Your task to perform on an android device: check data usage Image 0: 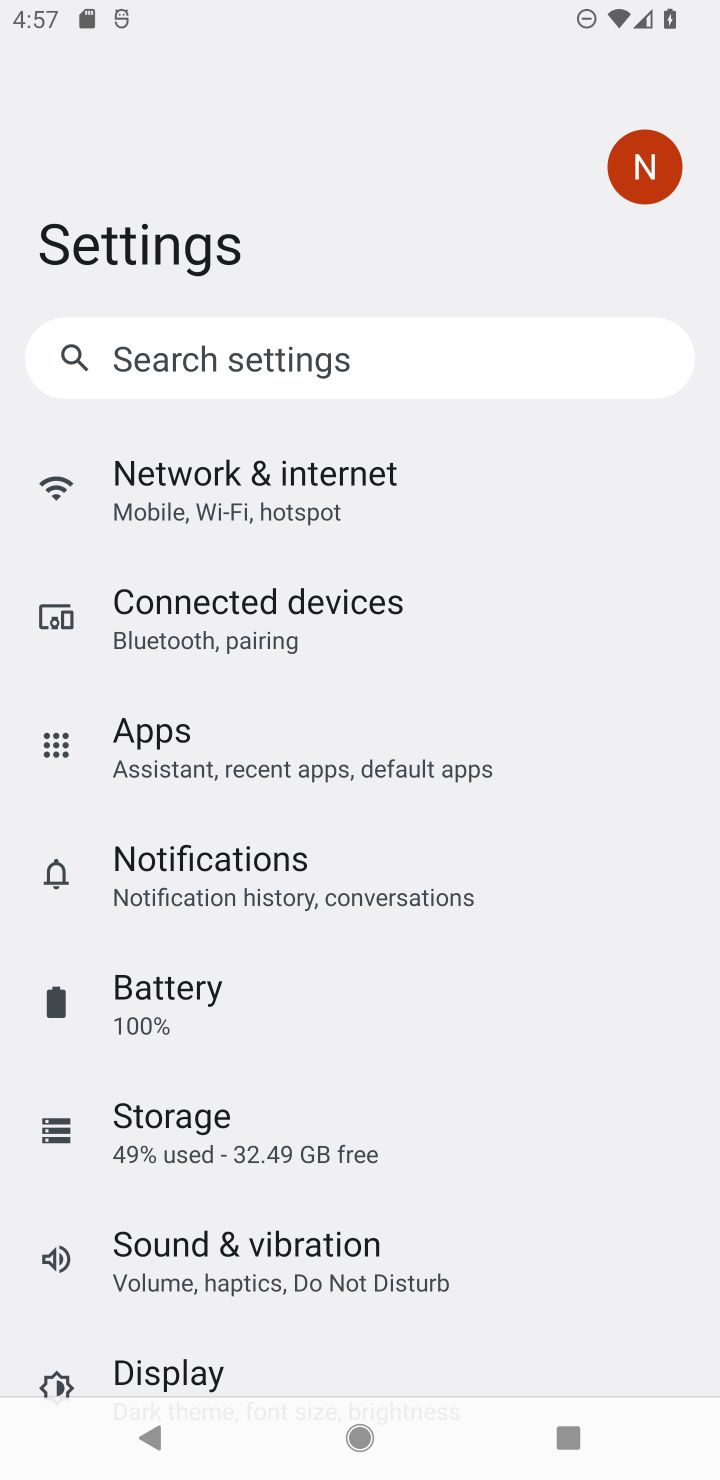
Step 0: drag from (343, 1231) to (420, 345)
Your task to perform on an android device: check data usage Image 1: 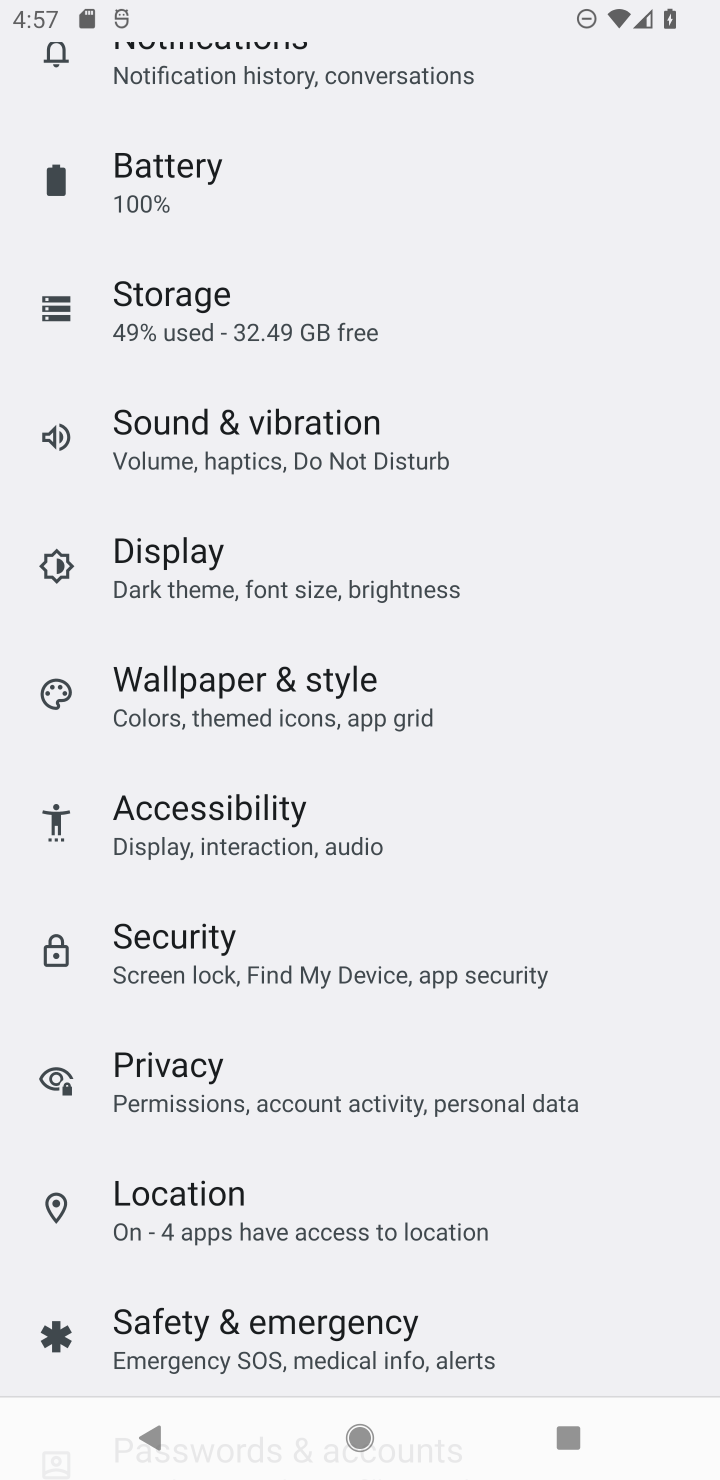
Step 1: drag from (435, 449) to (629, 1450)
Your task to perform on an android device: check data usage Image 2: 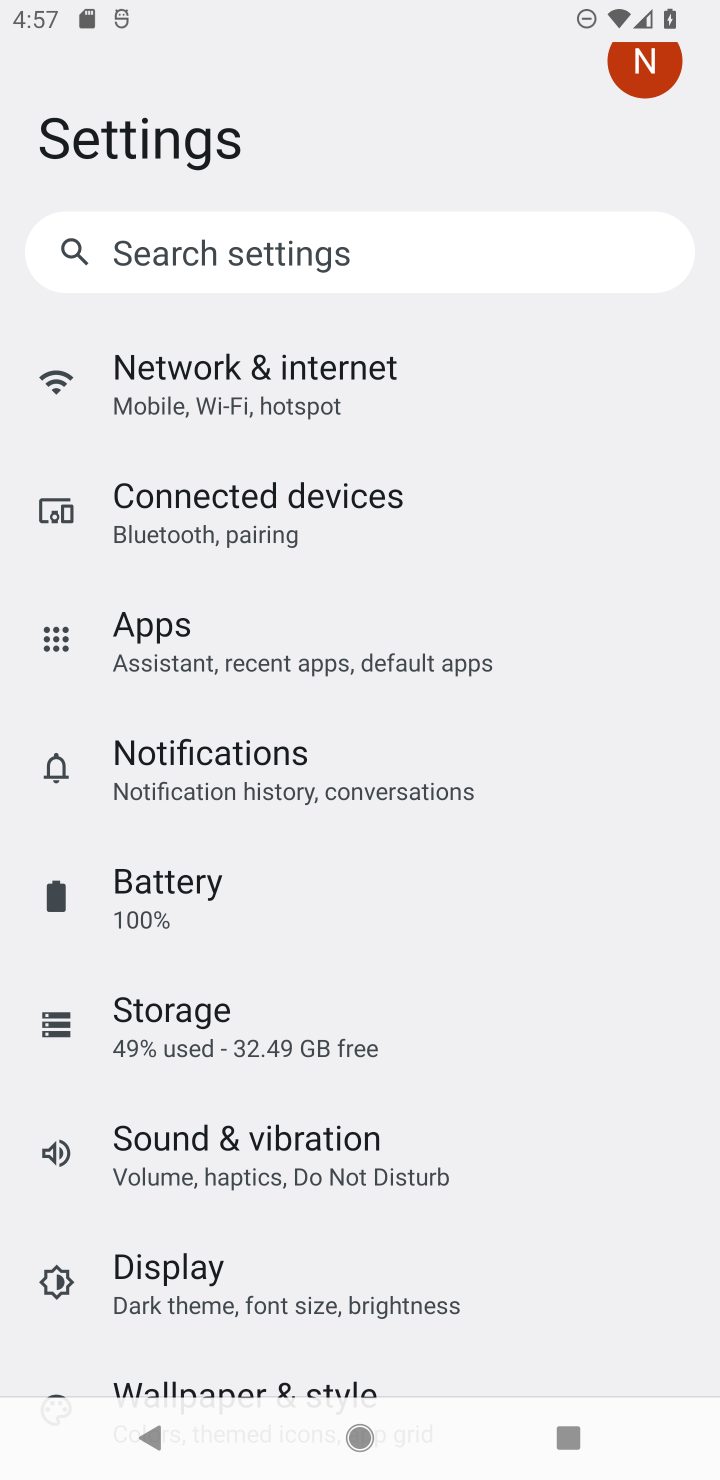
Step 2: click (197, 421)
Your task to perform on an android device: check data usage Image 3: 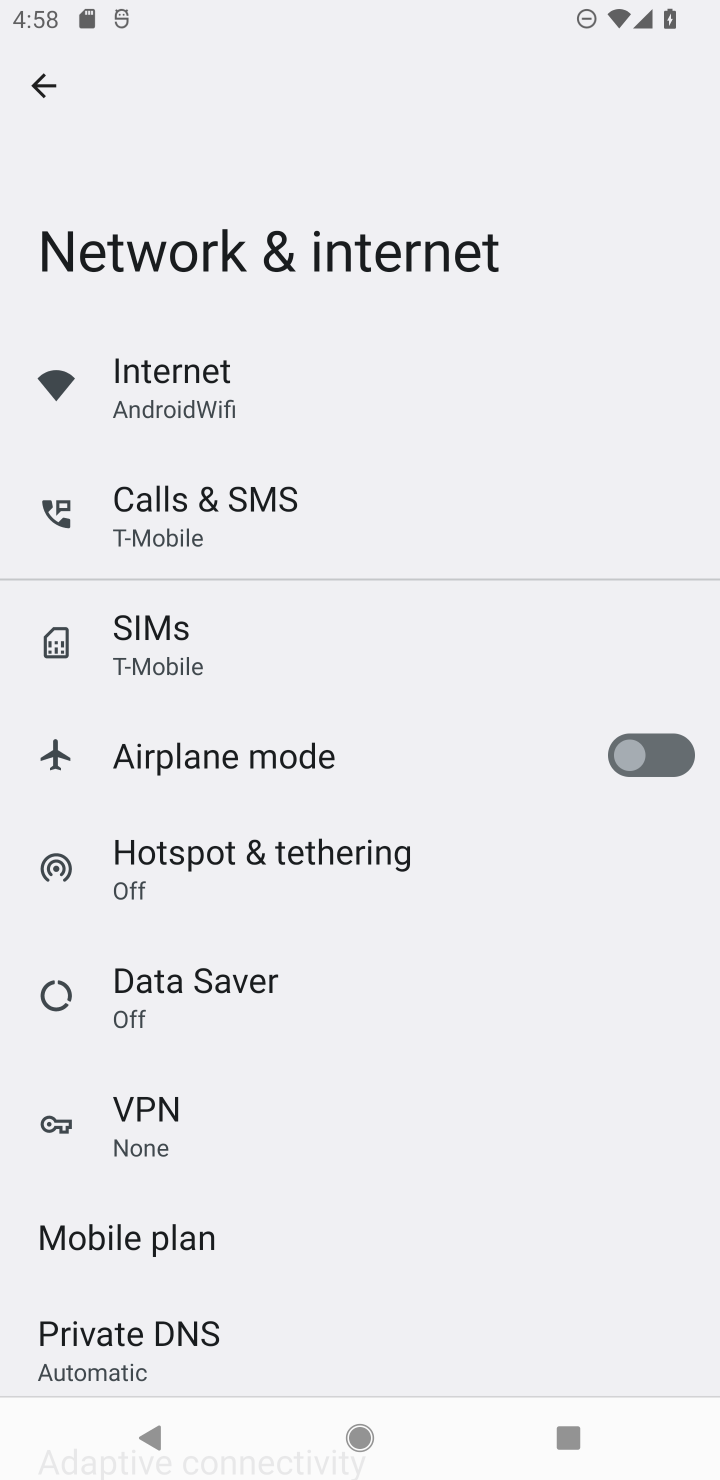
Step 3: drag from (314, 1108) to (469, 203)
Your task to perform on an android device: check data usage Image 4: 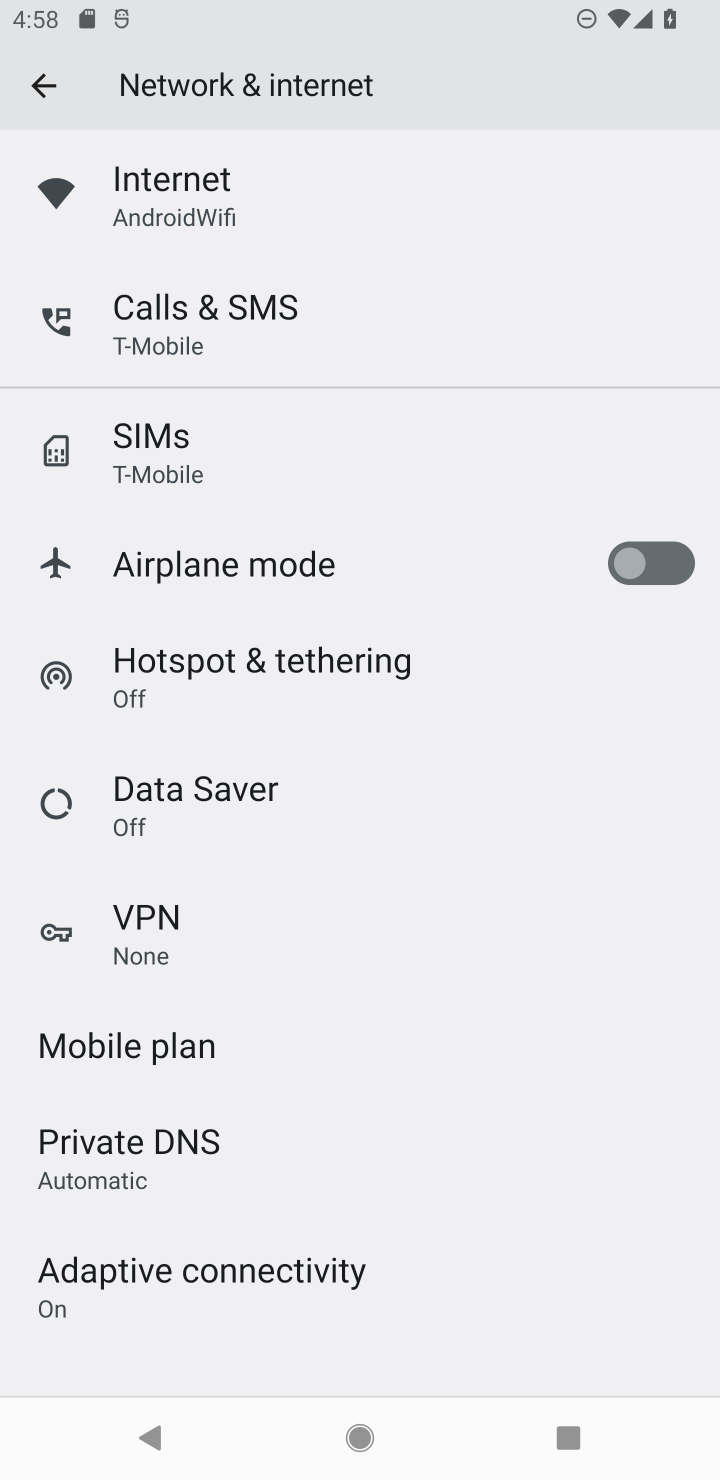
Step 4: click (226, 419)
Your task to perform on an android device: check data usage Image 5: 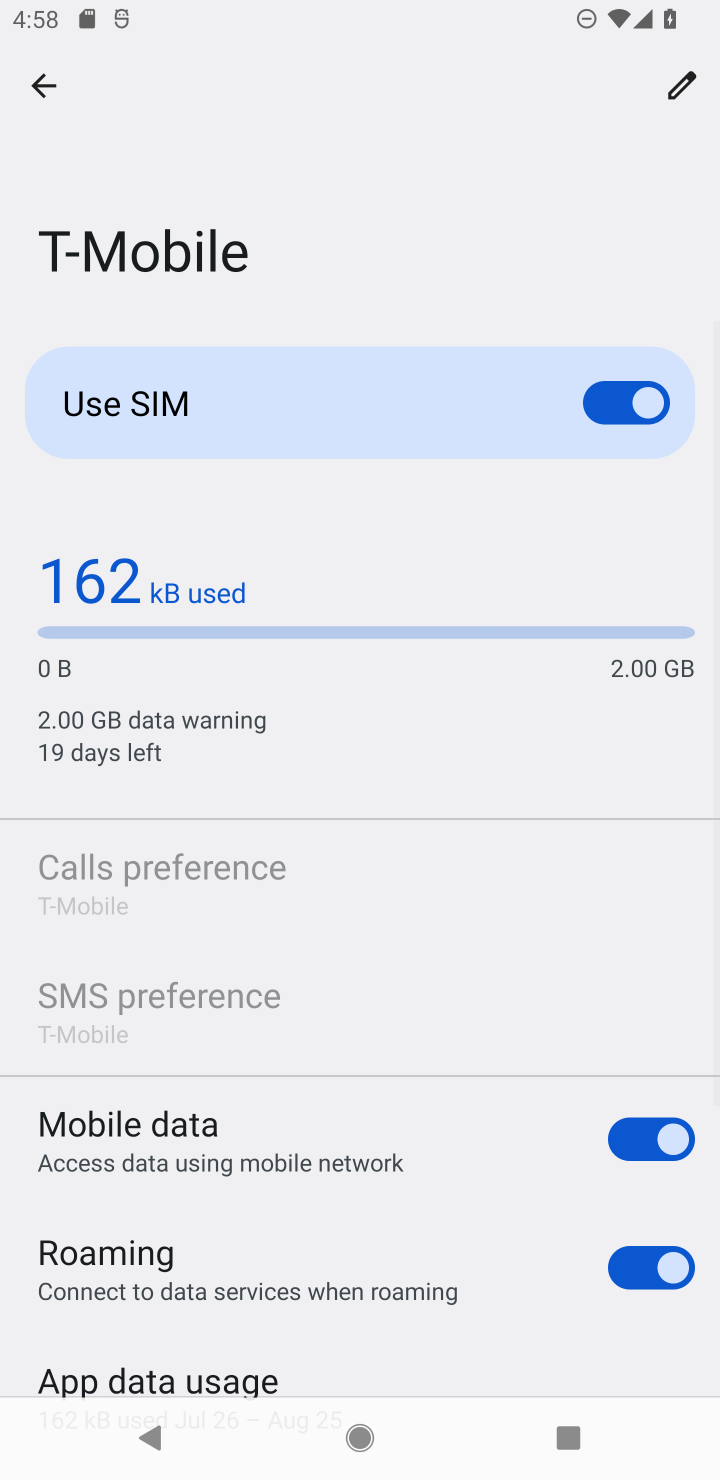
Step 5: task complete